Your task to perform on an android device: Open CNN.com Image 0: 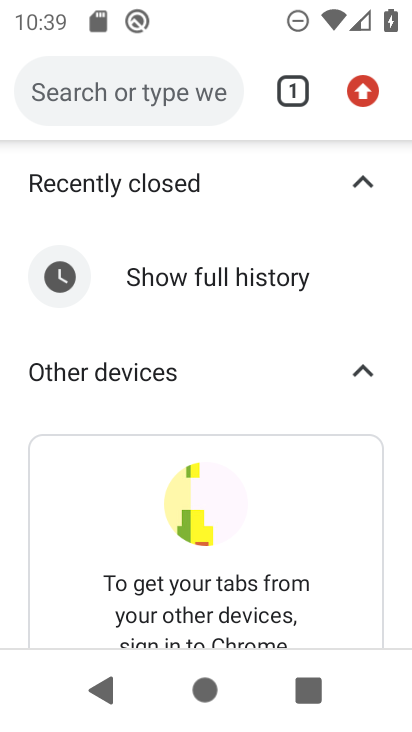
Step 0: drag from (127, 528) to (175, 224)
Your task to perform on an android device: Open CNN.com Image 1: 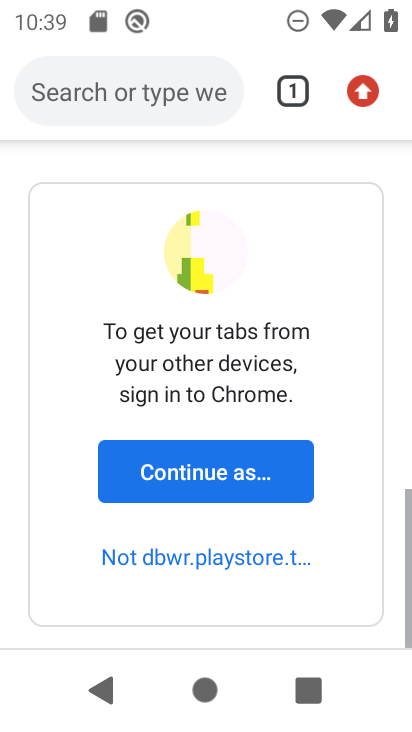
Step 1: click (143, 67)
Your task to perform on an android device: Open CNN.com Image 2: 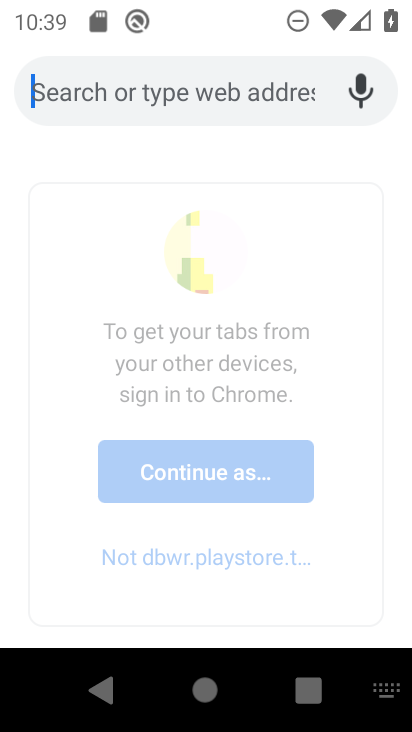
Step 2: type "cnn"
Your task to perform on an android device: Open CNN.com Image 3: 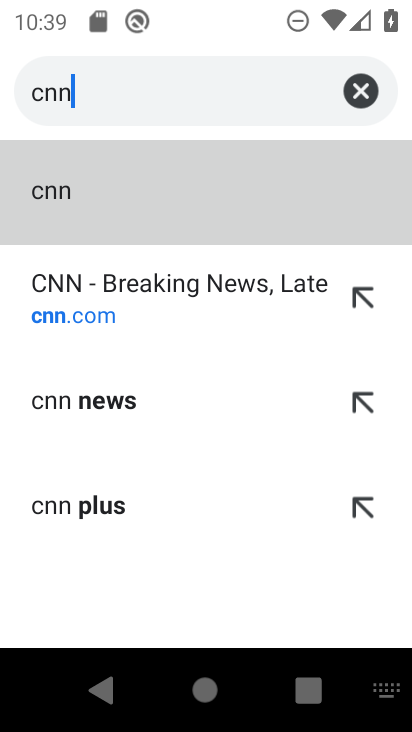
Step 3: click (80, 301)
Your task to perform on an android device: Open CNN.com Image 4: 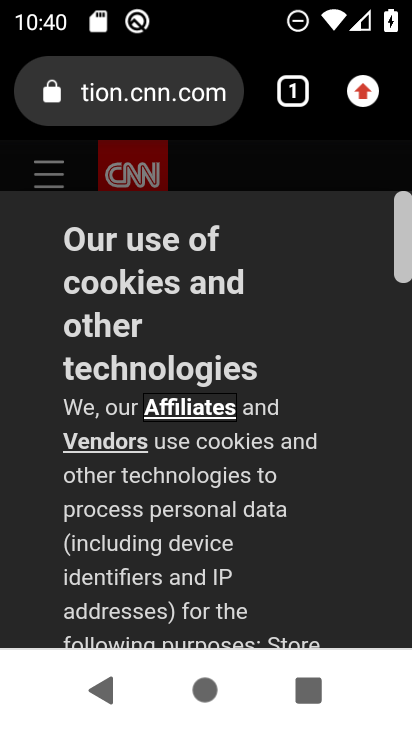
Step 4: task complete